Your task to perform on an android device: Open battery settings Image 0: 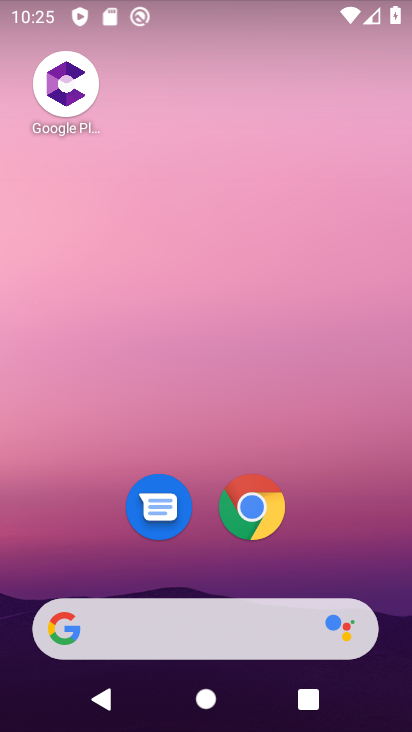
Step 0: drag from (187, 501) to (261, 188)
Your task to perform on an android device: Open battery settings Image 1: 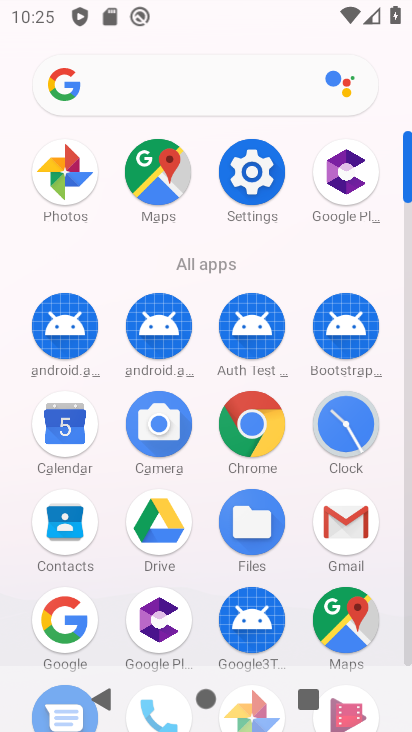
Step 1: click (261, 166)
Your task to perform on an android device: Open battery settings Image 2: 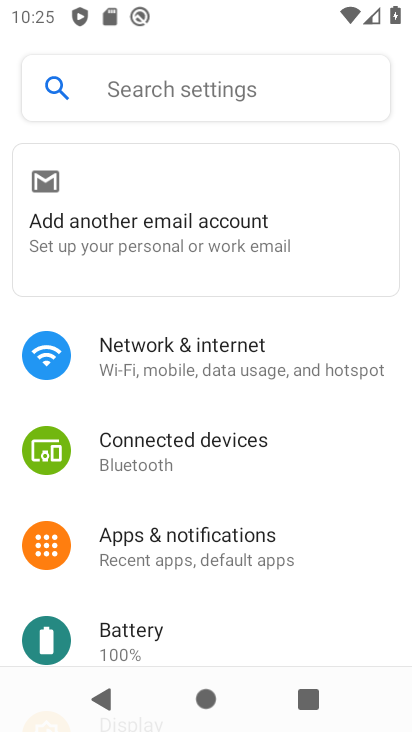
Step 2: drag from (165, 638) to (166, 229)
Your task to perform on an android device: Open battery settings Image 3: 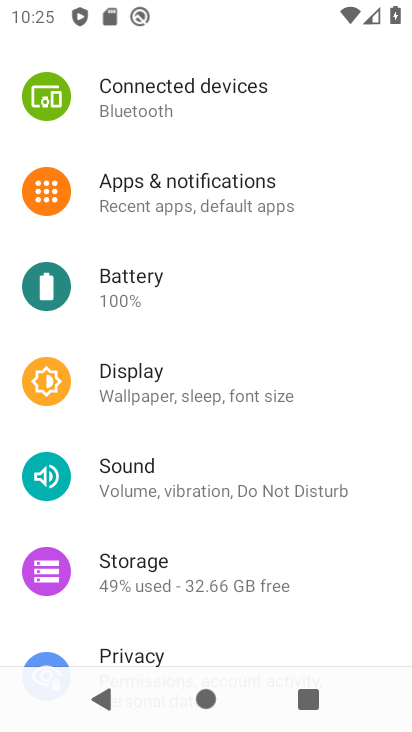
Step 3: click (134, 307)
Your task to perform on an android device: Open battery settings Image 4: 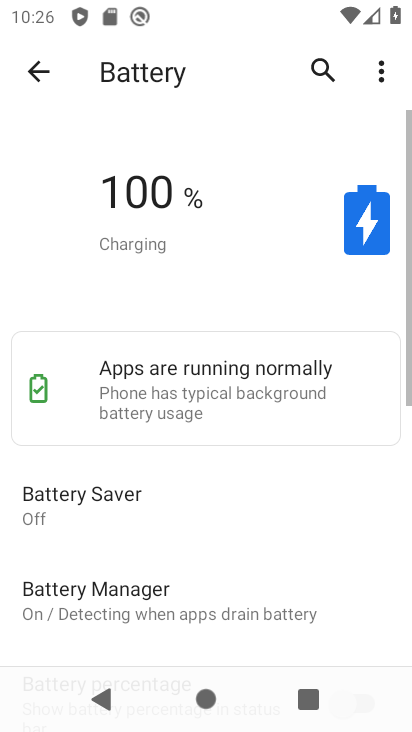
Step 4: task complete